Your task to perform on an android device: turn off wifi Image 0: 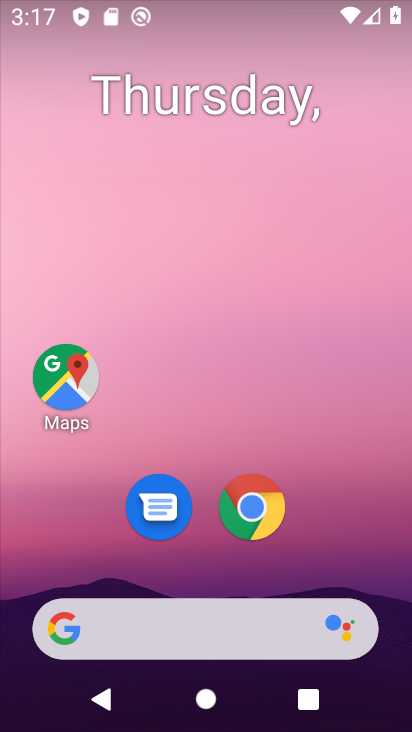
Step 0: drag from (258, 6) to (245, 556)
Your task to perform on an android device: turn off wifi Image 1: 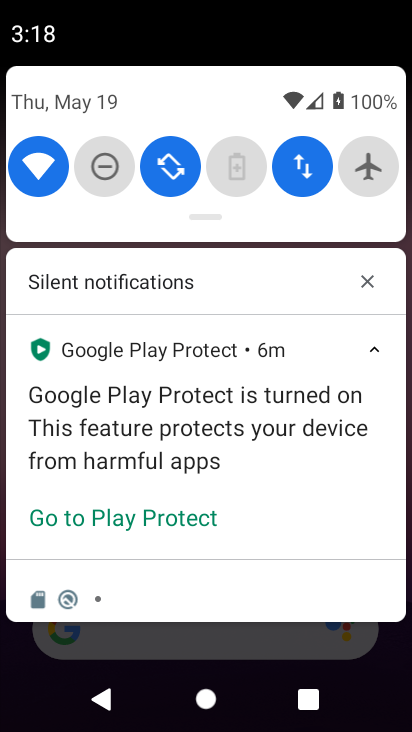
Step 1: click (41, 158)
Your task to perform on an android device: turn off wifi Image 2: 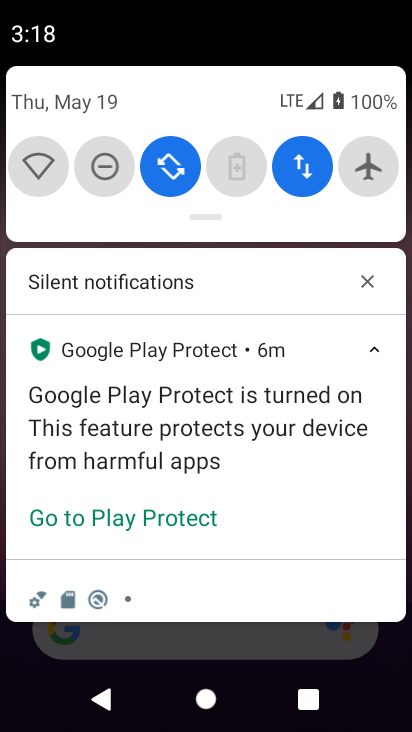
Step 2: task complete